Your task to perform on an android device: Open eBay Image 0: 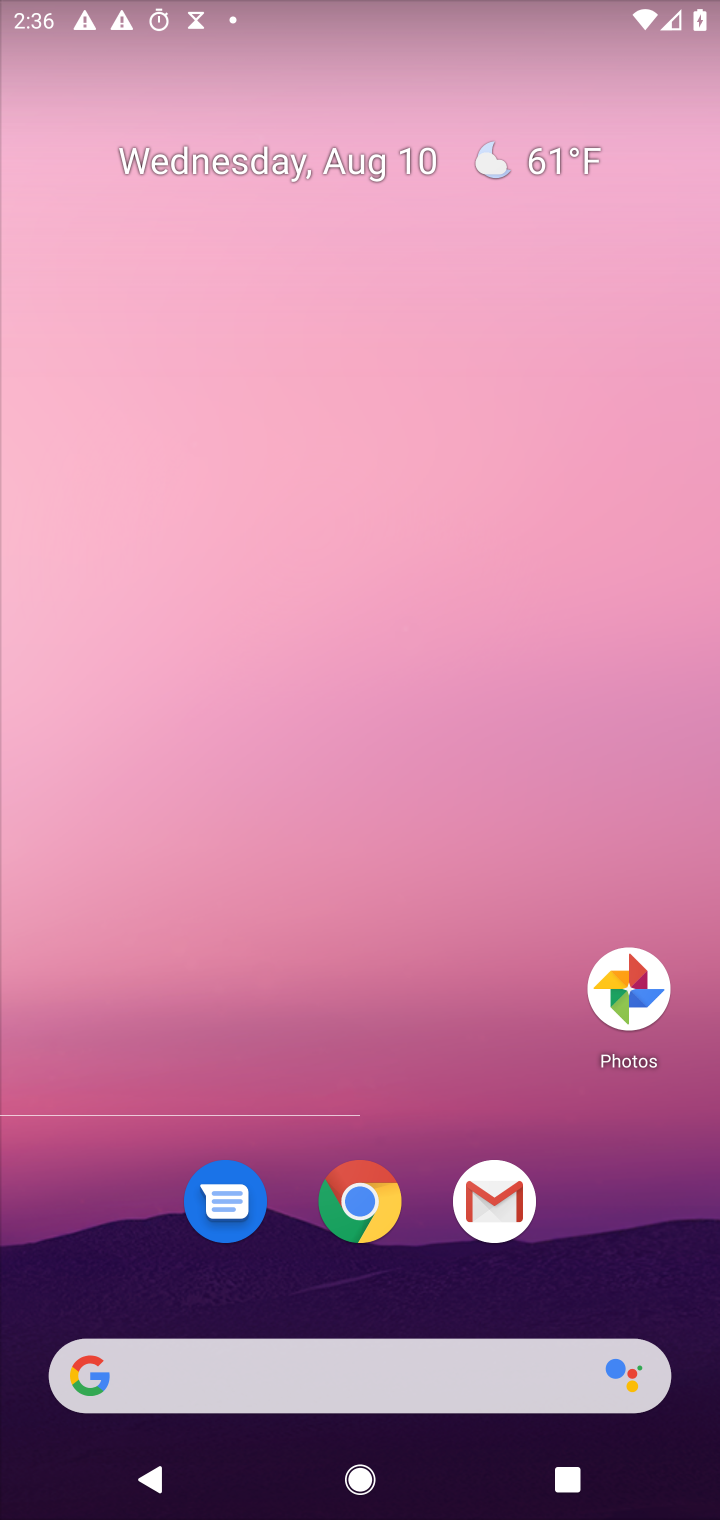
Step 0: press home button
Your task to perform on an android device: Open eBay Image 1: 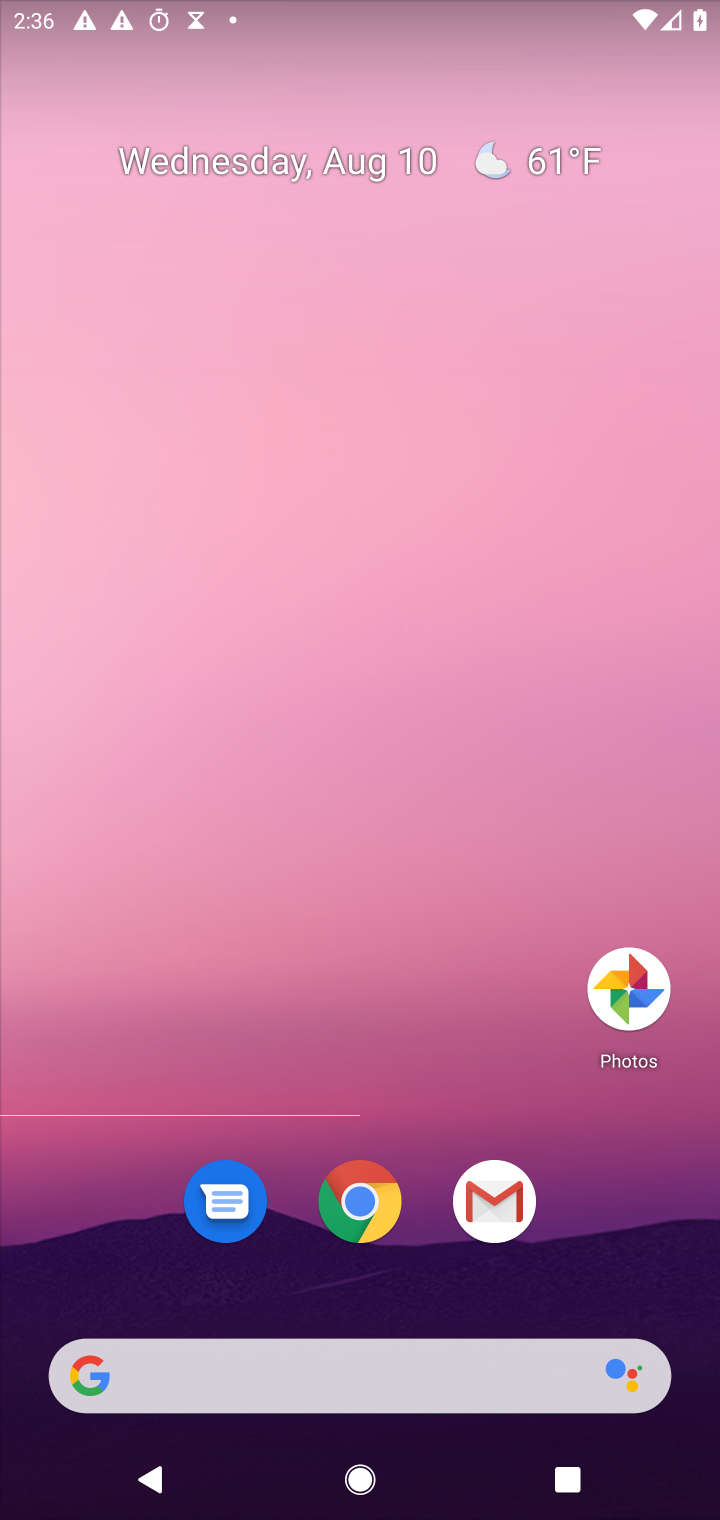
Step 1: click (82, 1374)
Your task to perform on an android device: Open eBay Image 2: 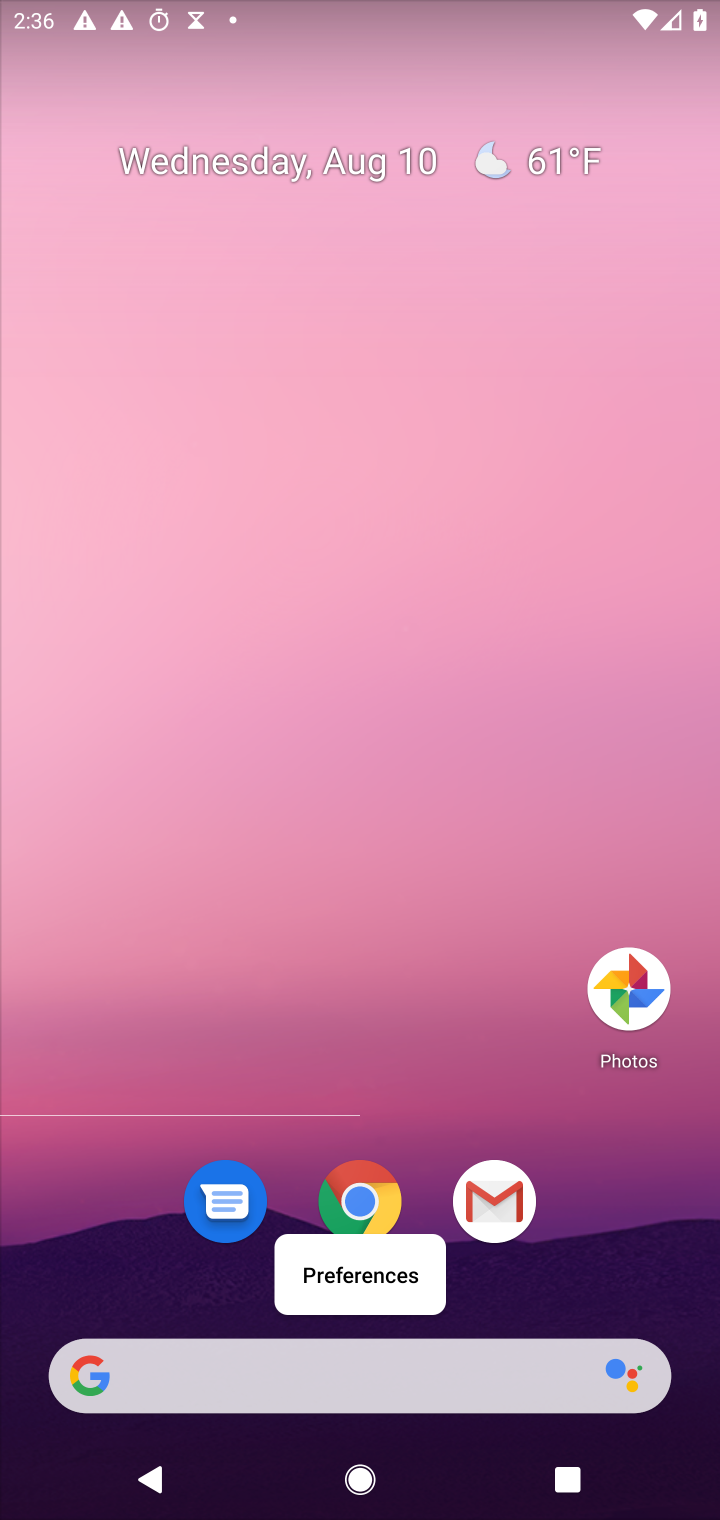
Step 2: click (82, 1374)
Your task to perform on an android device: Open eBay Image 3: 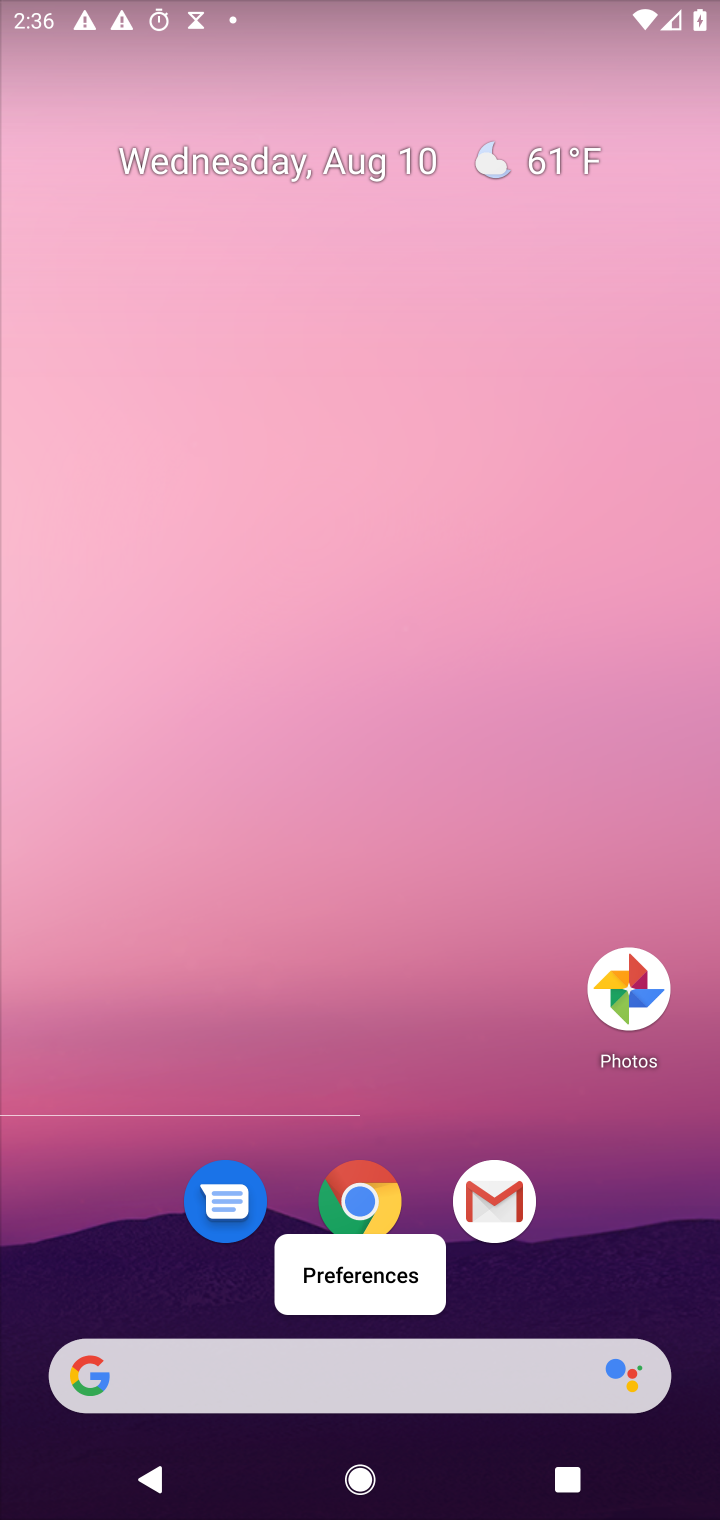
Step 3: click (82, 1374)
Your task to perform on an android device: Open eBay Image 4: 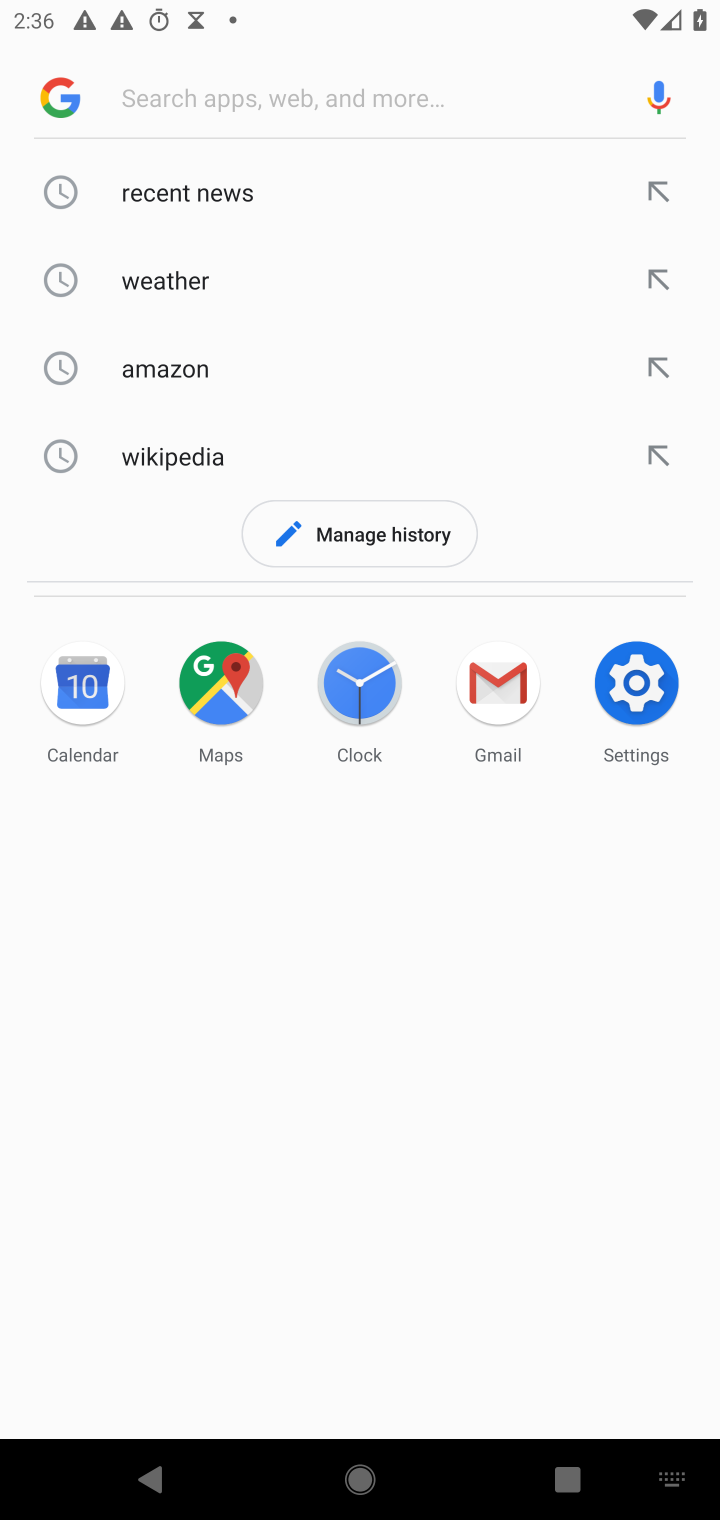
Step 4: type "eBay"
Your task to perform on an android device: Open eBay Image 5: 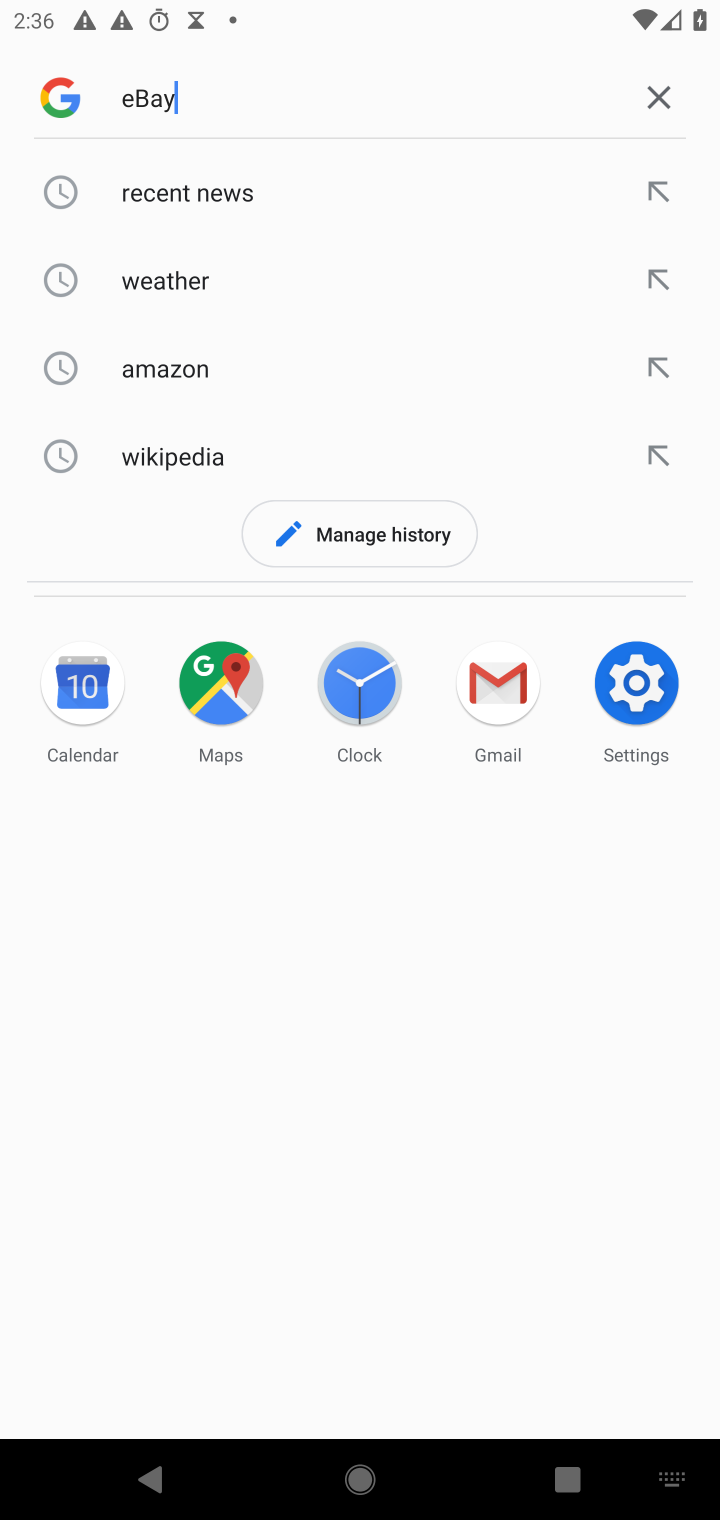
Step 5: press enter
Your task to perform on an android device: Open eBay Image 6: 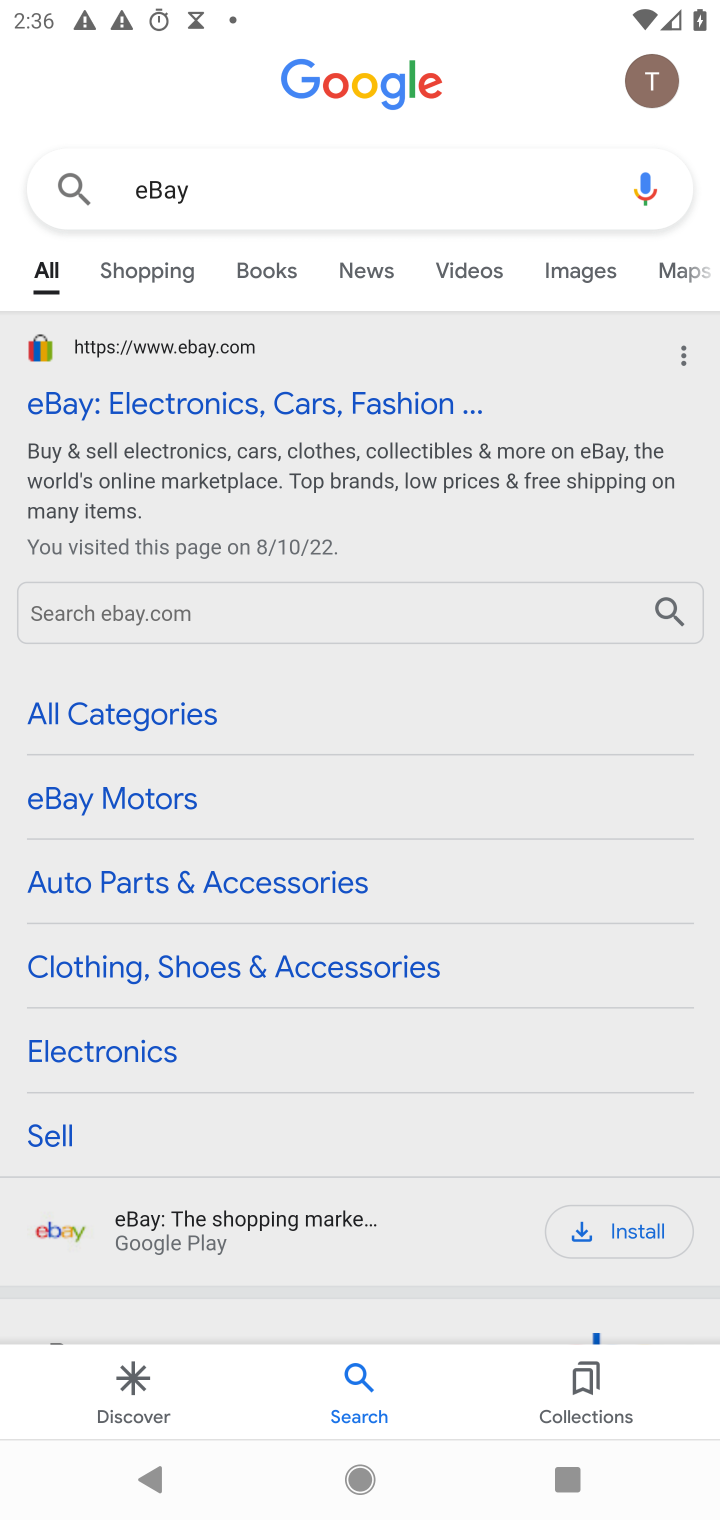
Step 6: click (168, 410)
Your task to perform on an android device: Open eBay Image 7: 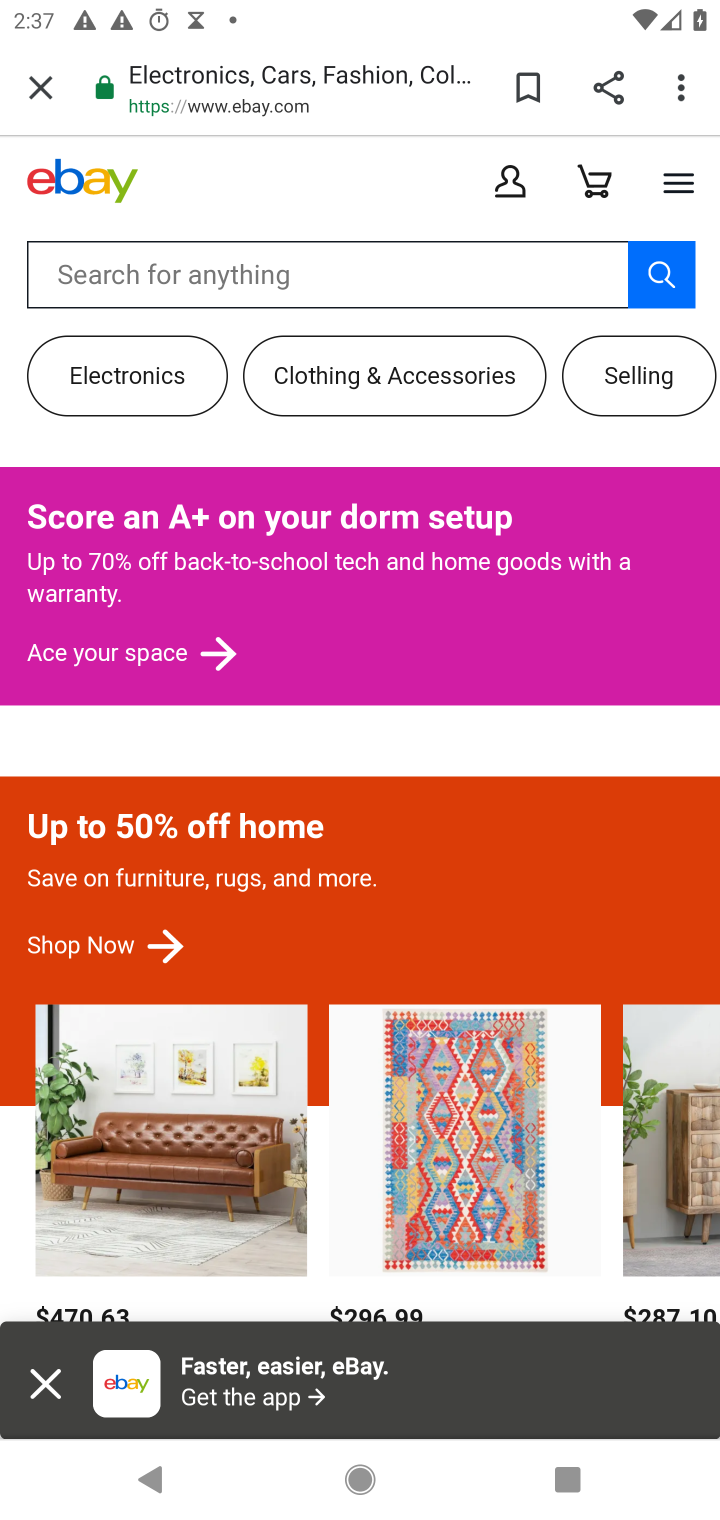
Step 7: task complete